Your task to perform on an android device: Open internet settings Image 0: 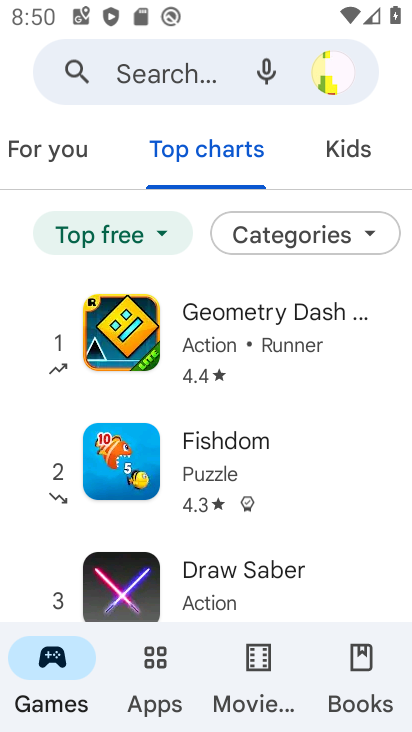
Step 0: press home button
Your task to perform on an android device: Open internet settings Image 1: 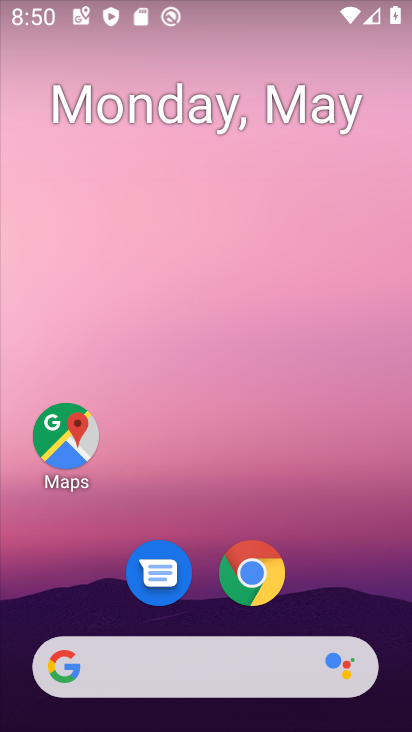
Step 1: drag from (360, 575) to (272, 78)
Your task to perform on an android device: Open internet settings Image 2: 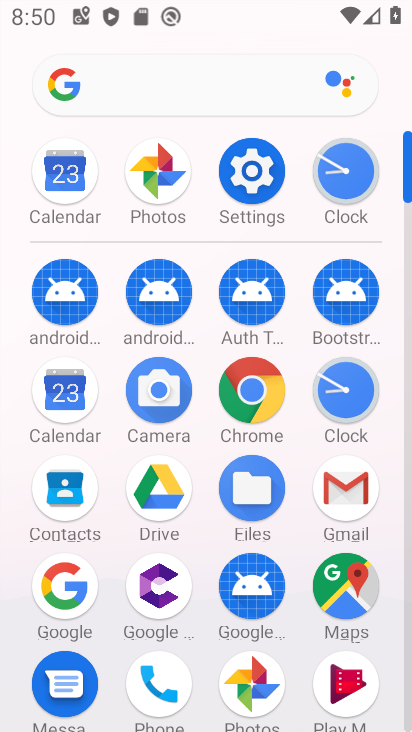
Step 2: click (258, 172)
Your task to perform on an android device: Open internet settings Image 3: 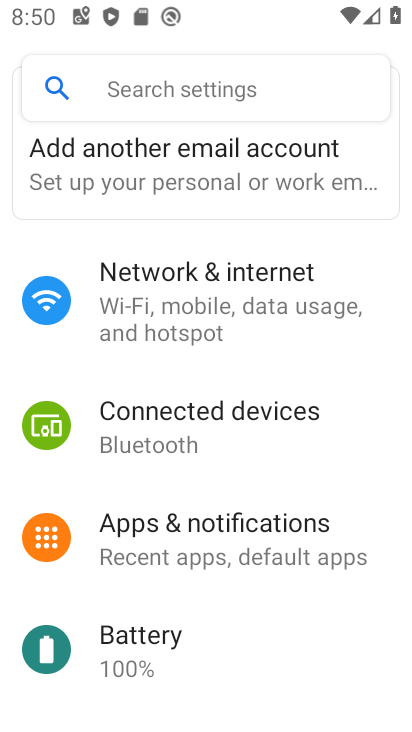
Step 3: click (252, 165)
Your task to perform on an android device: Open internet settings Image 4: 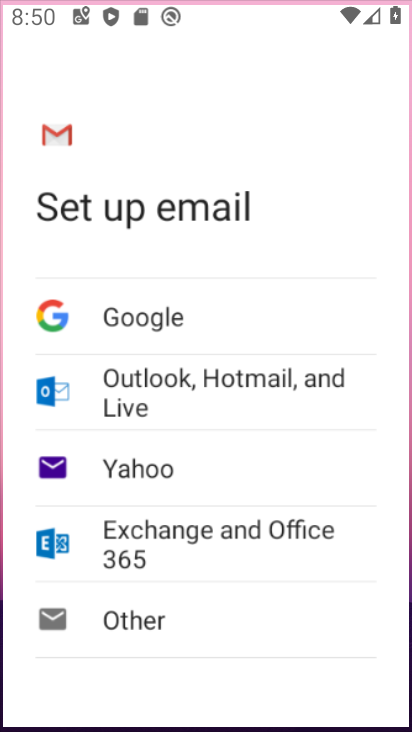
Step 4: click (236, 295)
Your task to perform on an android device: Open internet settings Image 5: 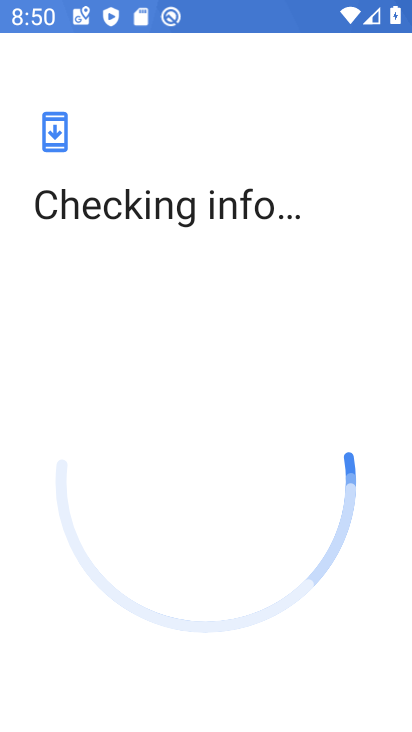
Step 5: press home button
Your task to perform on an android device: Open internet settings Image 6: 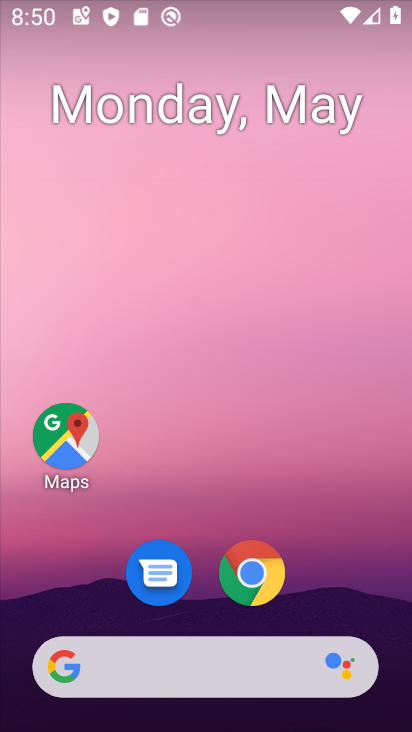
Step 6: drag from (368, 529) to (241, 125)
Your task to perform on an android device: Open internet settings Image 7: 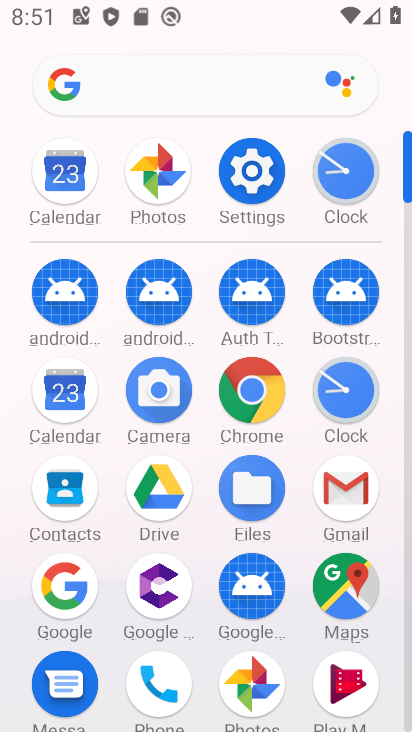
Step 7: click (224, 182)
Your task to perform on an android device: Open internet settings Image 8: 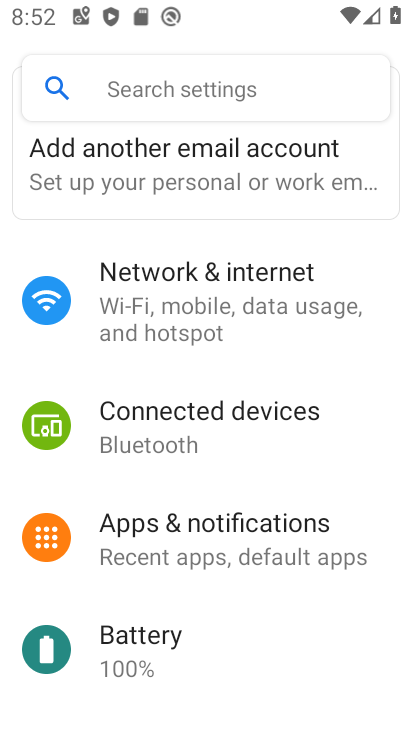
Step 8: click (192, 295)
Your task to perform on an android device: Open internet settings Image 9: 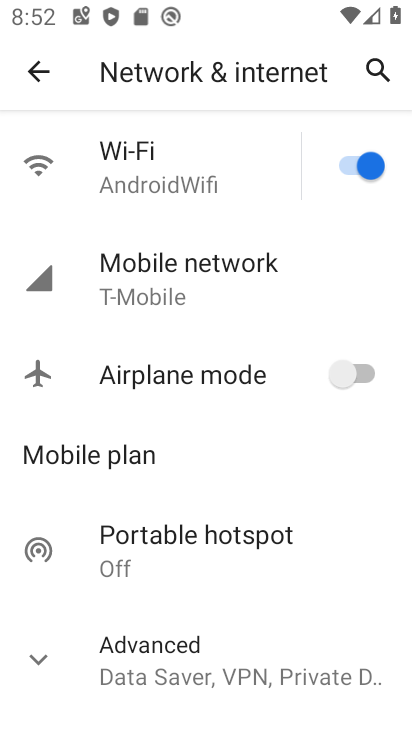
Step 9: task complete